Your task to perform on an android device: Open my contact list Image 0: 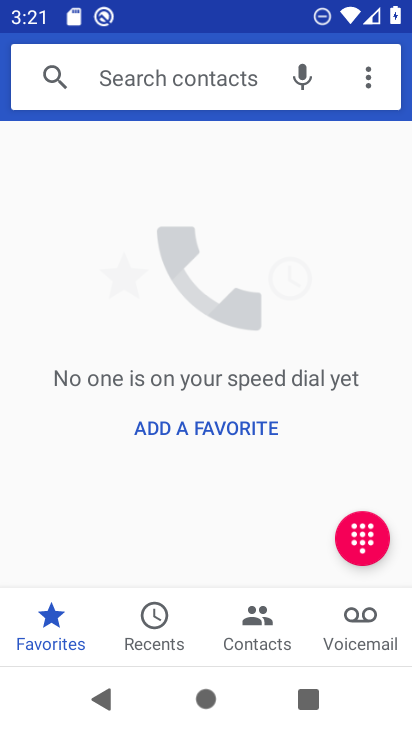
Step 0: press home button
Your task to perform on an android device: Open my contact list Image 1: 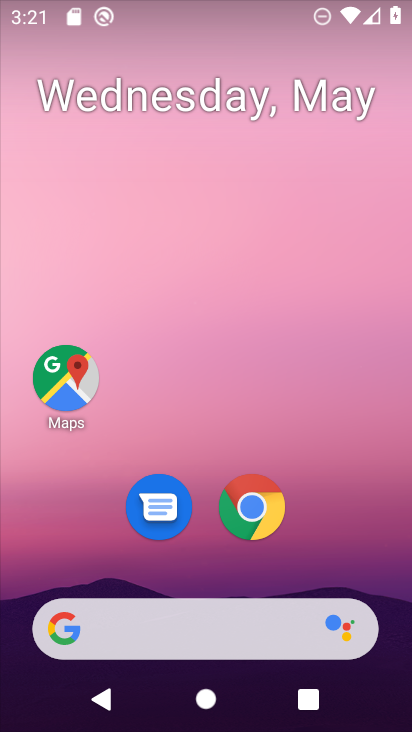
Step 1: drag from (241, 559) to (305, 21)
Your task to perform on an android device: Open my contact list Image 2: 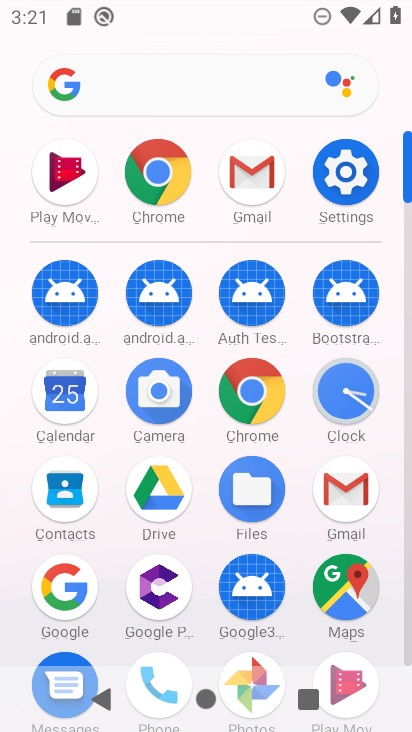
Step 2: click (64, 505)
Your task to perform on an android device: Open my contact list Image 3: 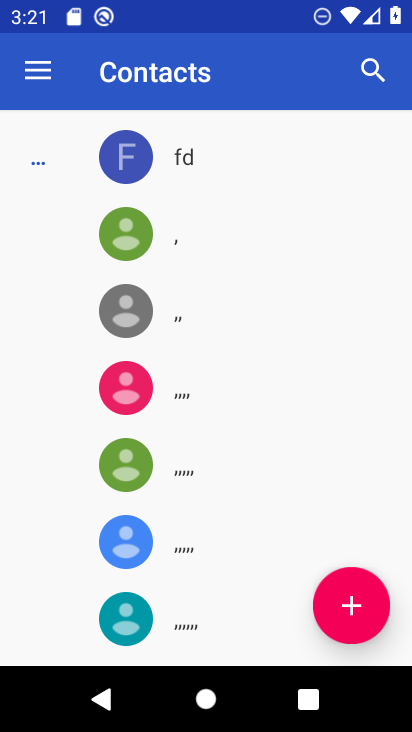
Step 3: click (365, 603)
Your task to perform on an android device: Open my contact list Image 4: 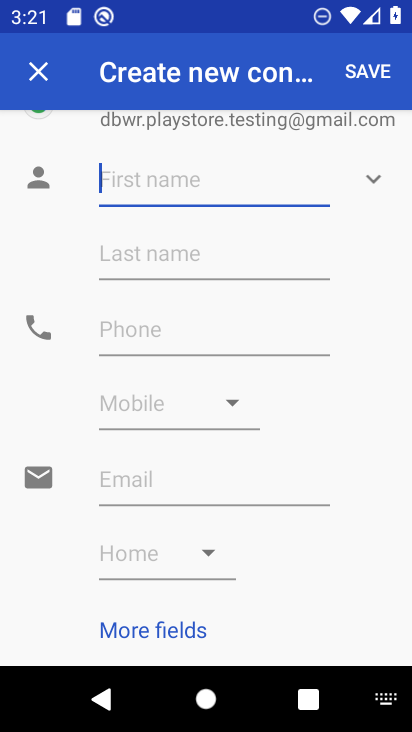
Step 4: type "frem"
Your task to perform on an android device: Open my contact list Image 5: 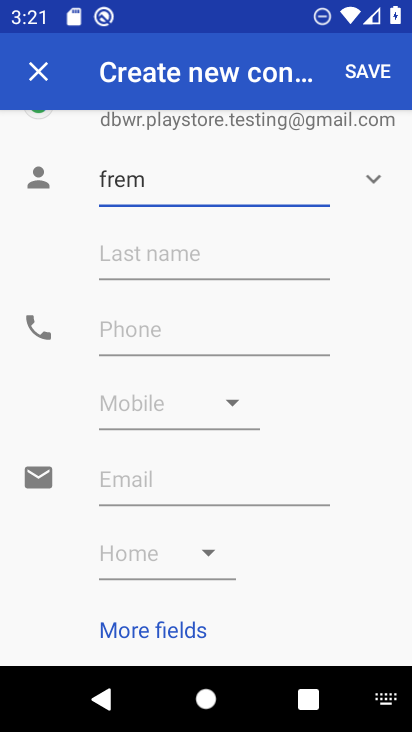
Step 5: click (367, 67)
Your task to perform on an android device: Open my contact list Image 6: 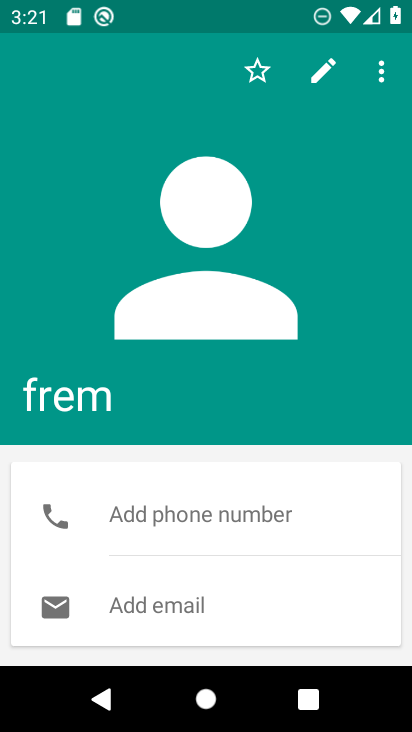
Step 6: task complete